Your task to perform on an android device: Go to privacy settings Image 0: 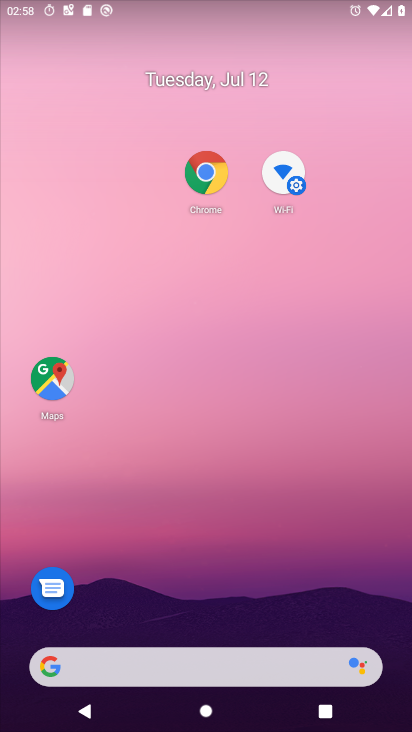
Step 0: drag from (187, 606) to (296, 20)
Your task to perform on an android device: Go to privacy settings Image 1: 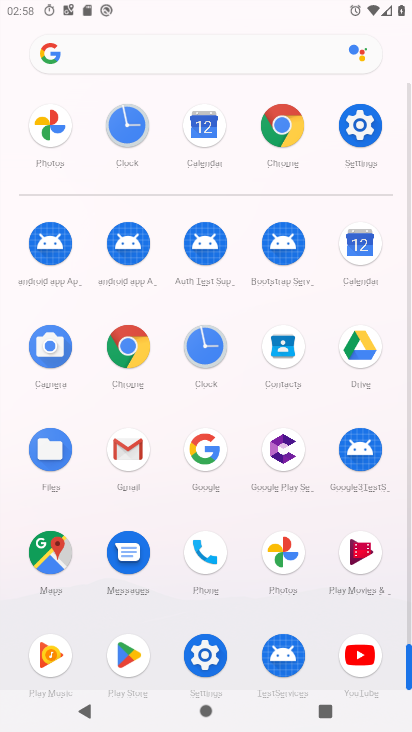
Step 1: drag from (238, 639) to (247, 139)
Your task to perform on an android device: Go to privacy settings Image 2: 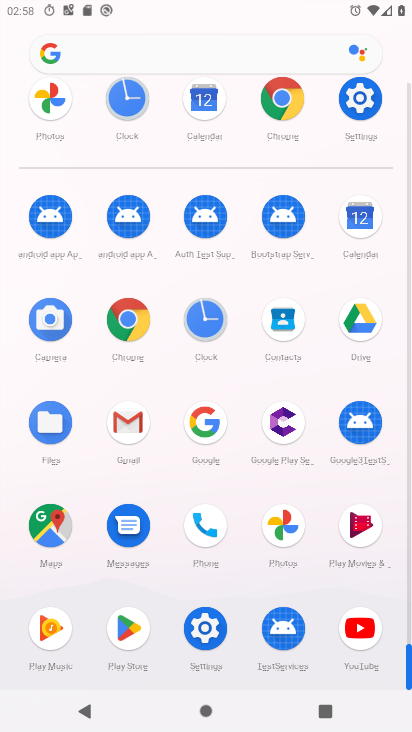
Step 2: click (211, 630)
Your task to perform on an android device: Go to privacy settings Image 3: 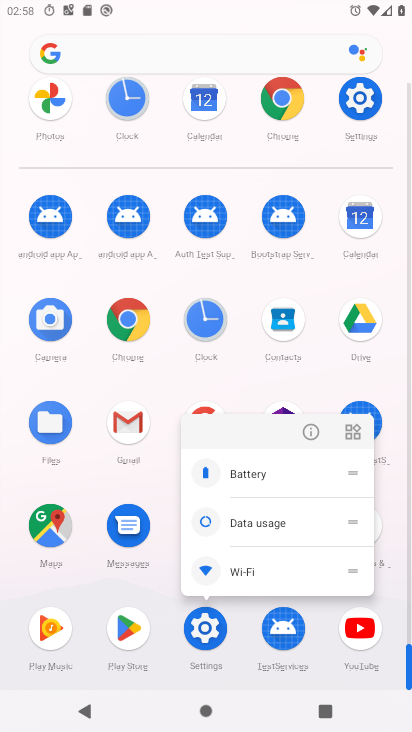
Step 3: click (318, 425)
Your task to perform on an android device: Go to privacy settings Image 4: 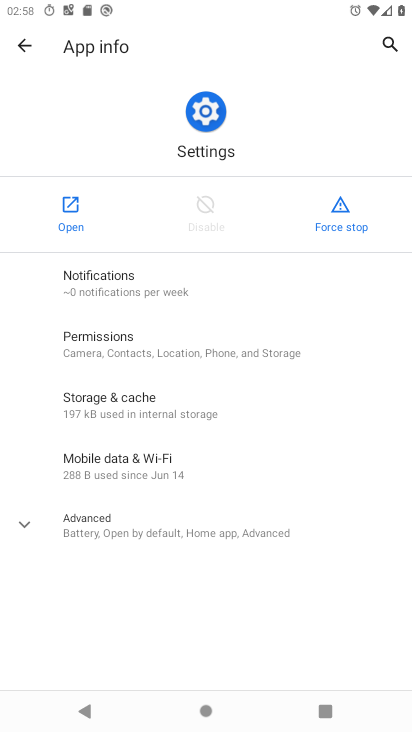
Step 4: click (69, 218)
Your task to perform on an android device: Go to privacy settings Image 5: 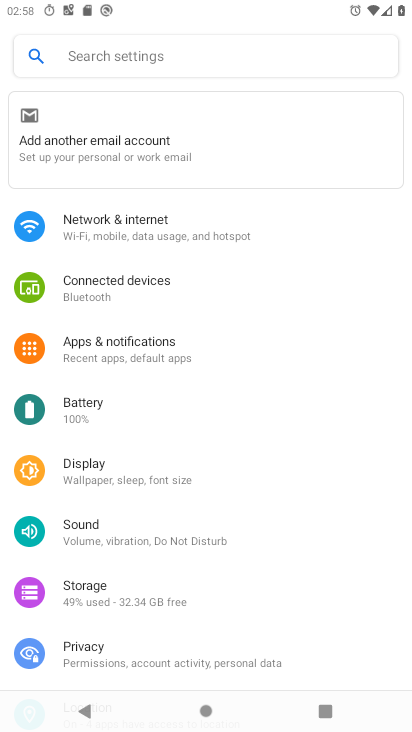
Step 5: drag from (123, 643) to (141, 165)
Your task to perform on an android device: Go to privacy settings Image 6: 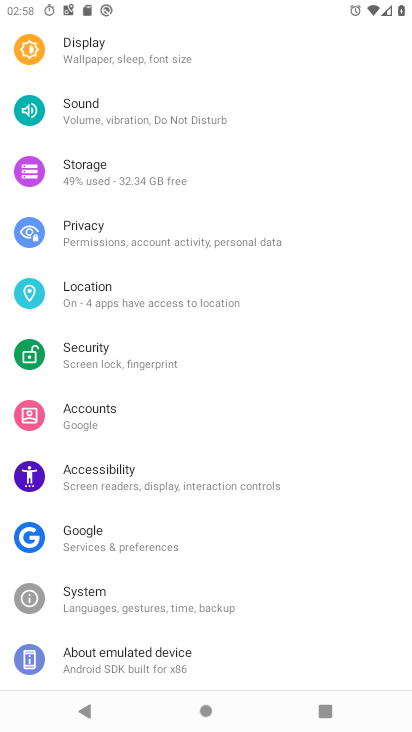
Step 6: click (156, 232)
Your task to perform on an android device: Go to privacy settings Image 7: 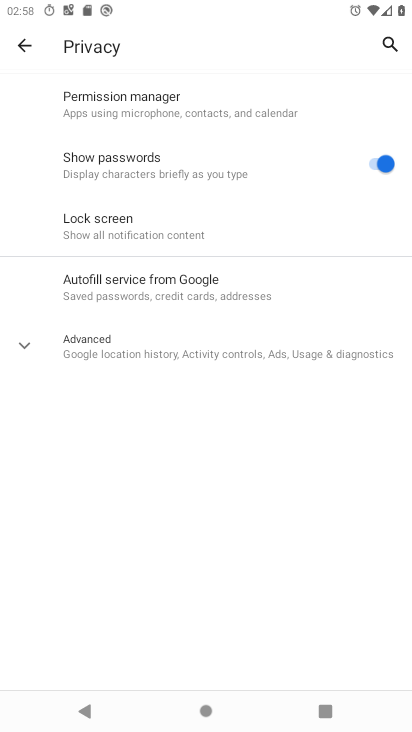
Step 7: task complete